Your task to perform on an android device: open chrome and create a bookmark for the current page Image 0: 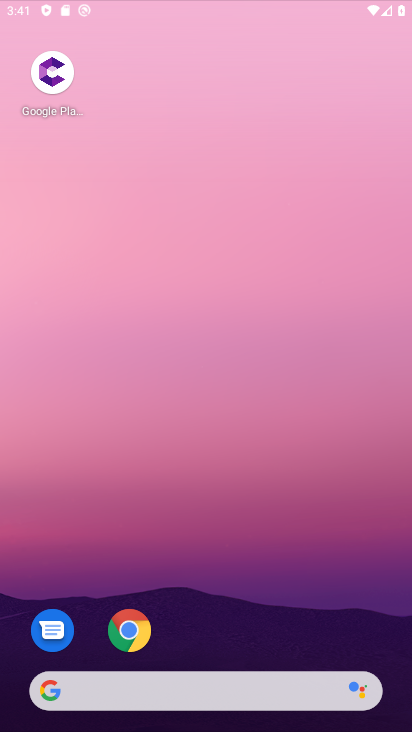
Step 0: drag from (259, 638) to (253, 190)
Your task to perform on an android device: open chrome and create a bookmark for the current page Image 1: 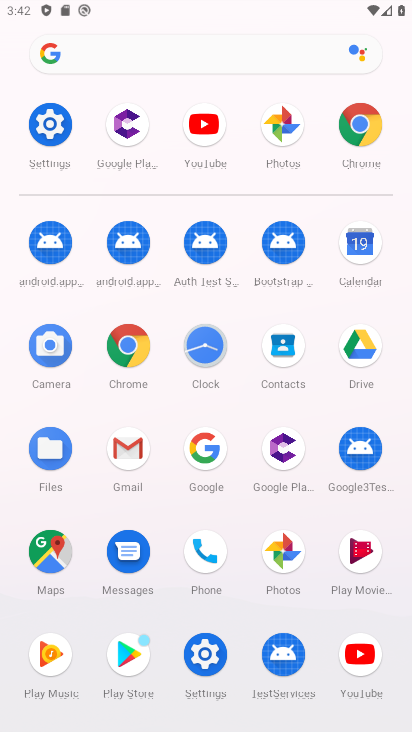
Step 1: click (145, 336)
Your task to perform on an android device: open chrome and create a bookmark for the current page Image 2: 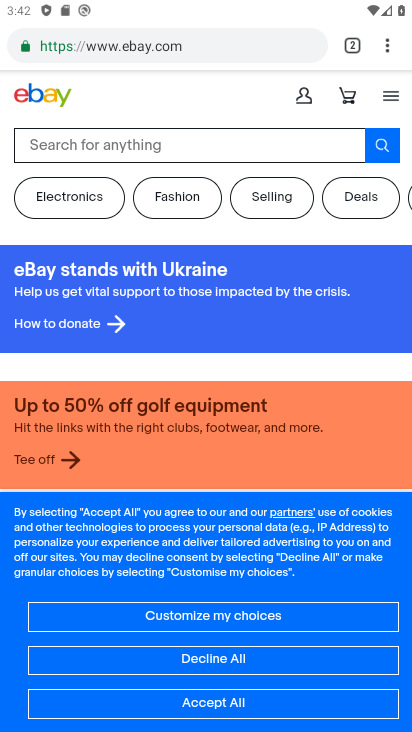
Step 2: click (387, 51)
Your task to perform on an android device: open chrome and create a bookmark for the current page Image 3: 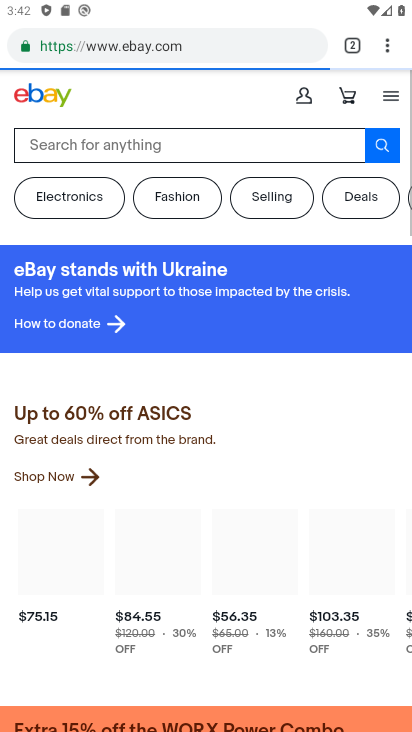
Step 3: task complete